Your task to perform on an android device: What's the weather going to be tomorrow? Image 0: 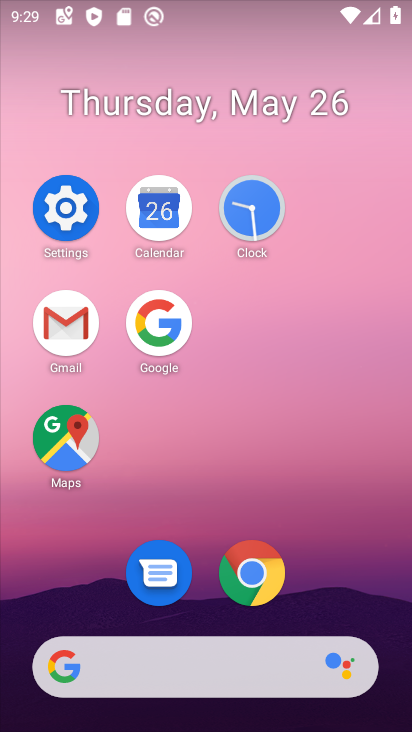
Step 0: click (183, 312)
Your task to perform on an android device: What's the weather going to be tomorrow? Image 1: 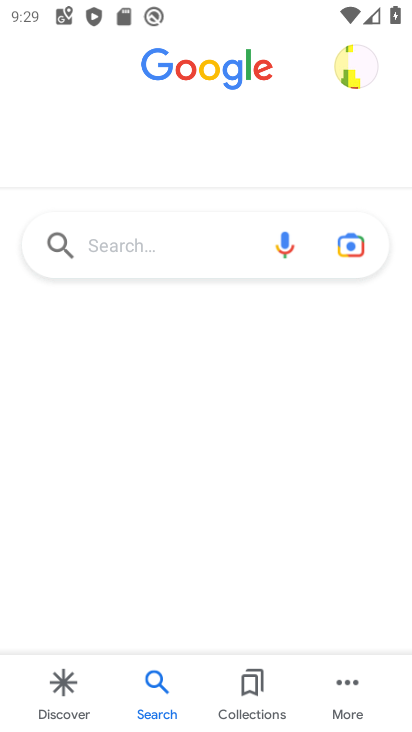
Step 1: click (150, 260)
Your task to perform on an android device: What's the weather going to be tomorrow? Image 2: 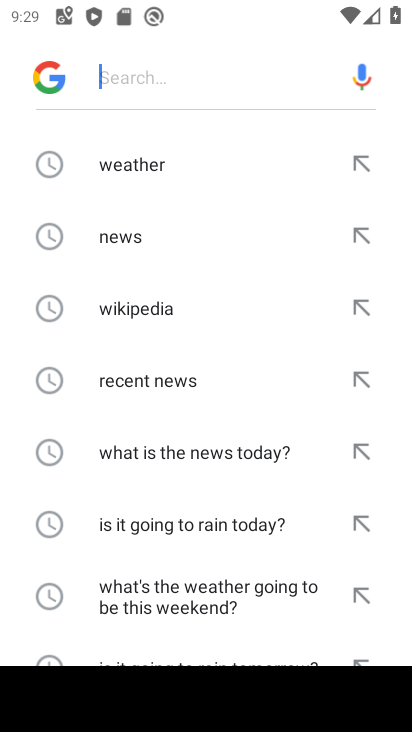
Step 2: click (151, 159)
Your task to perform on an android device: What's the weather going to be tomorrow? Image 3: 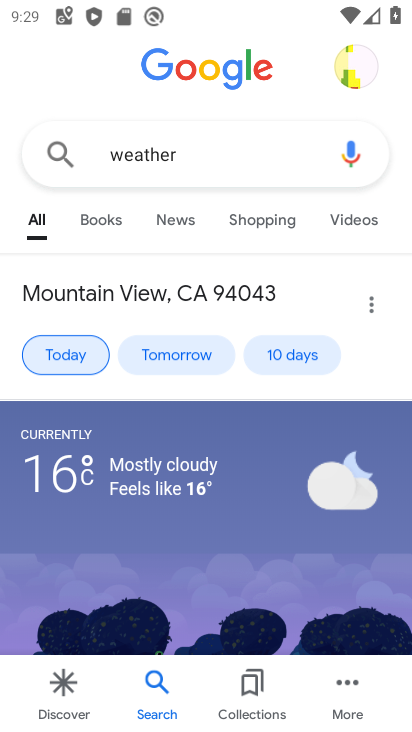
Step 3: click (193, 345)
Your task to perform on an android device: What's the weather going to be tomorrow? Image 4: 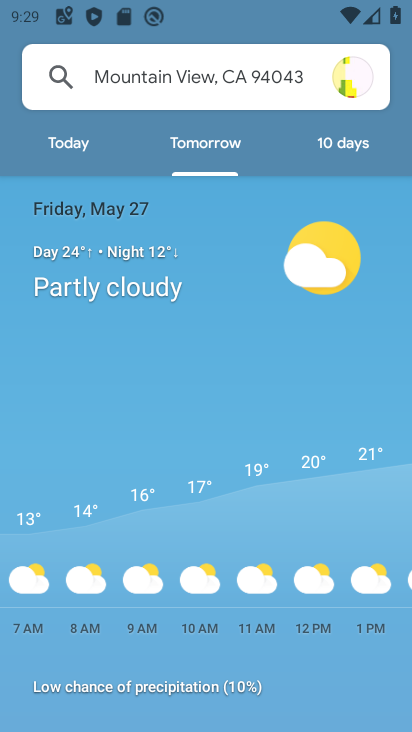
Step 4: task complete